Your task to perform on an android device: Open calendar and show me the fourth week of next month Image 0: 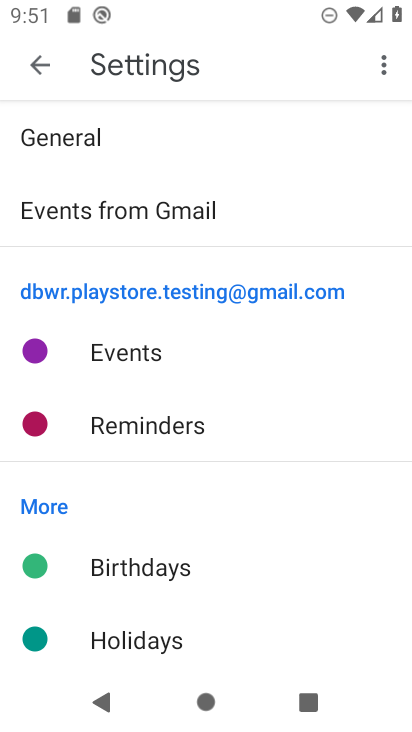
Step 0: press back button
Your task to perform on an android device: Open calendar and show me the fourth week of next month Image 1: 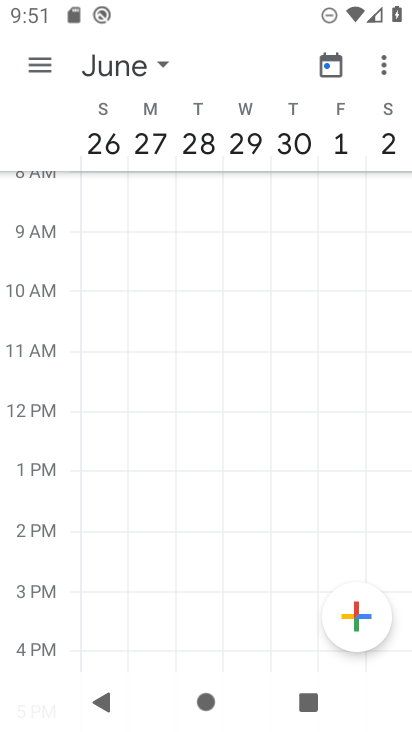
Step 1: press back button
Your task to perform on an android device: Open calendar and show me the fourth week of next month Image 2: 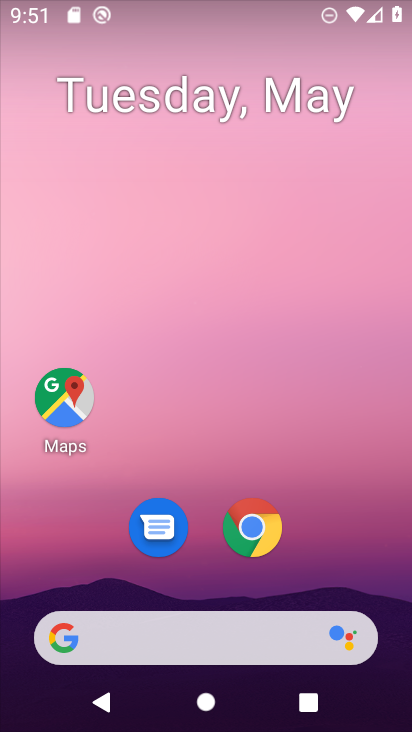
Step 2: drag from (335, 553) to (273, 212)
Your task to perform on an android device: Open calendar and show me the fourth week of next month Image 3: 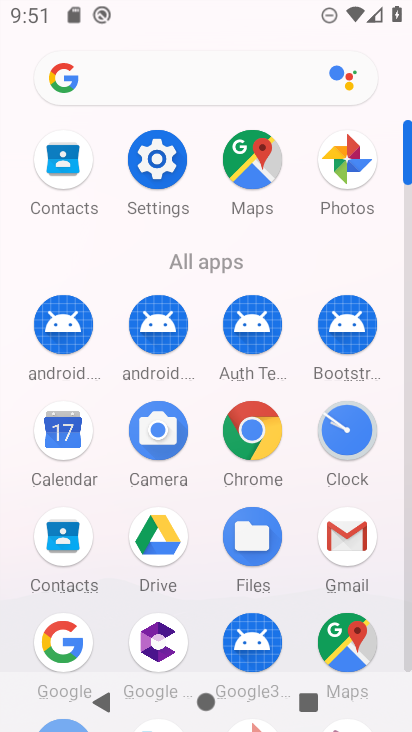
Step 3: click (62, 430)
Your task to perform on an android device: Open calendar and show me the fourth week of next month Image 4: 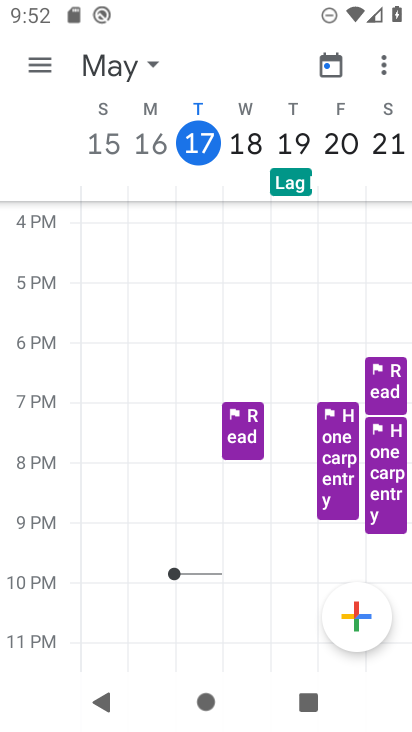
Step 4: click (334, 69)
Your task to perform on an android device: Open calendar and show me the fourth week of next month Image 5: 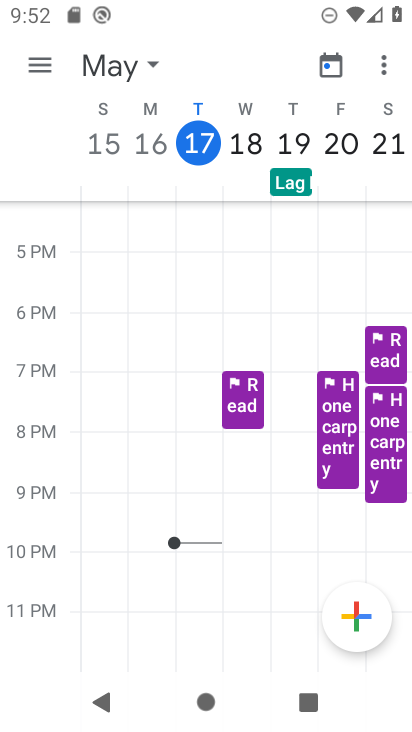
Step 5: click (334, 69)
Your task to perform on an android device: Open calendar and show me the fourth week of next month Image 6: 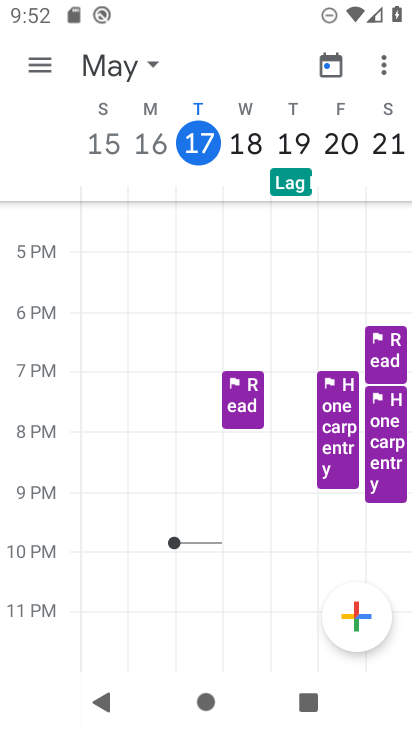
Step 6: click (149, 63)
Your task to perform on an android device: Open calendar and show me the fourth week of next month Image 7: 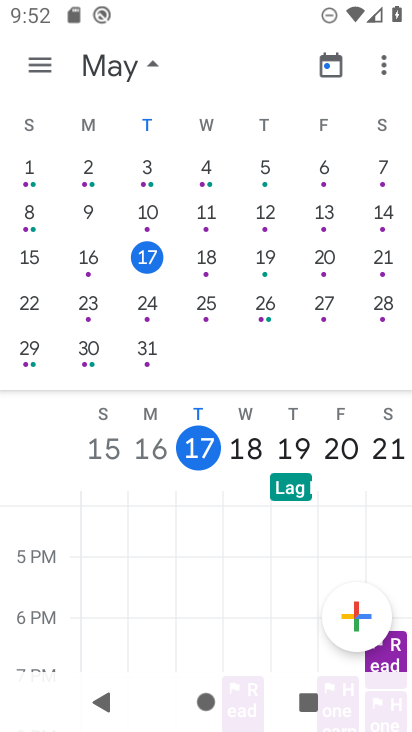
Step 7: drag from (362, 272) to (18, 273)
Your task to perform on an android device: Open calendar and show me the fourth week of next month Image 8: 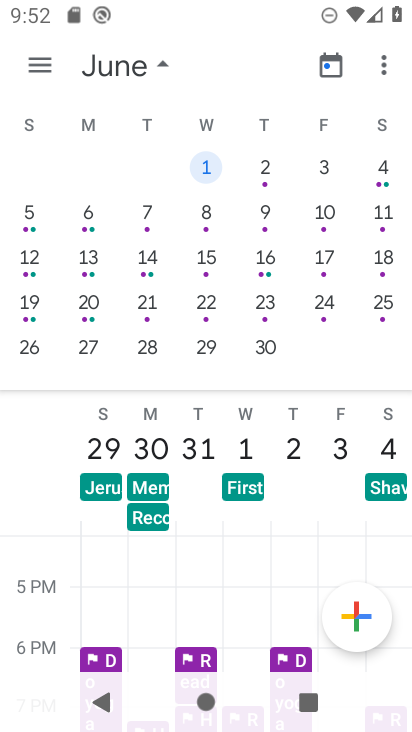
Step 8: click (89, 346)
Your task to perform on an android device: Open calendar and show me the fourth week of next month Image 9: 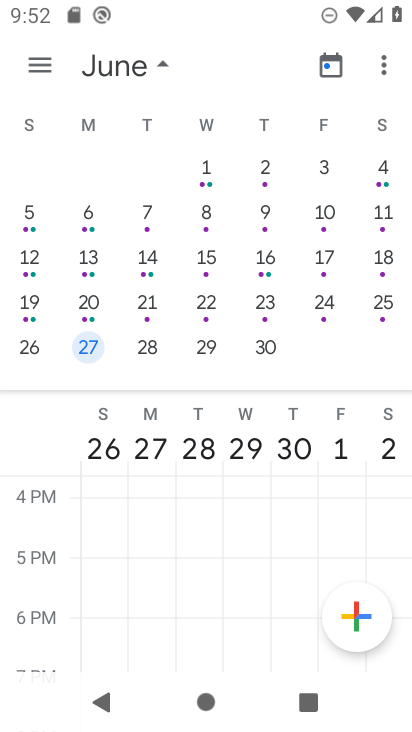
Step 9: click (50, 63)
Your task to perform on an android device: Open calendar and show me the fourth week of next month Image 10: 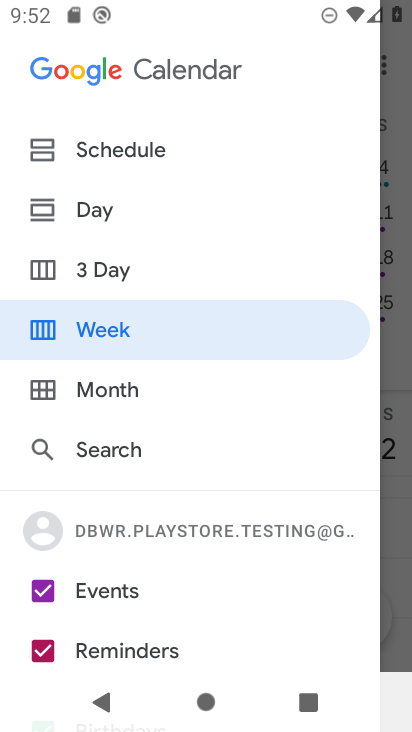
Step 10: click (117, 308)
Your task to perform on an android device: Open calendar and show me the fourth week of next month Image 11: 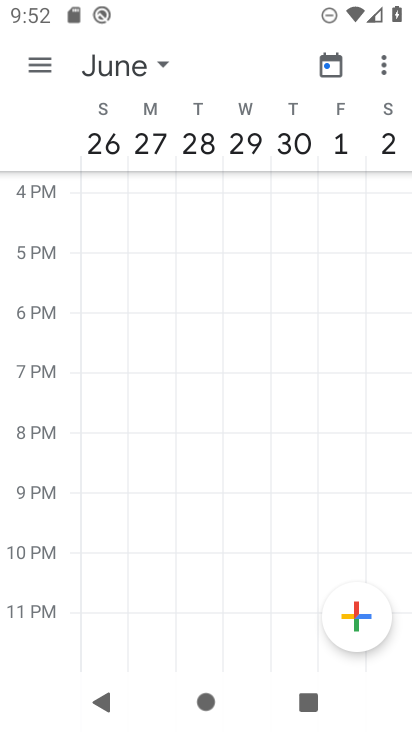
Step 11: task complete